Your task to perform on an android device: change the upload size in google photos Image 0: 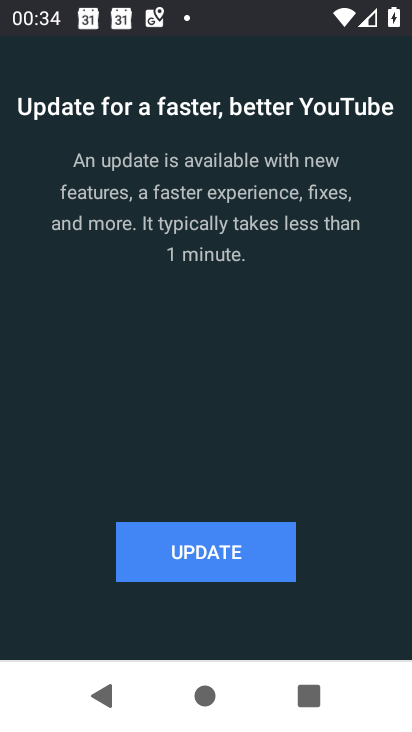
Step 0: press back button
Your task to perform on an android device: change the upload size in google photos Image 1: 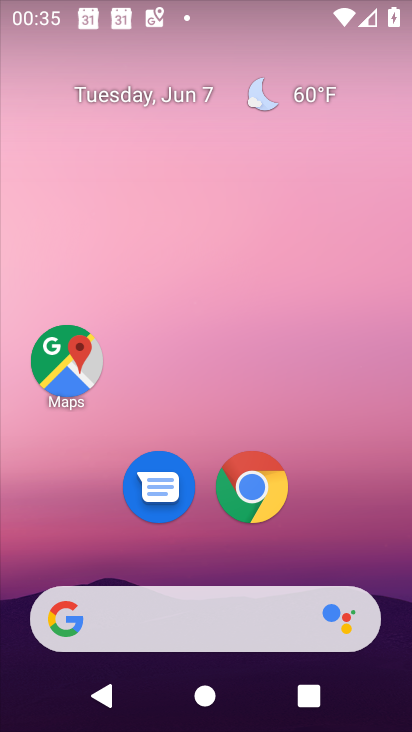
Step 1: drag from (395, 588) to (279, 52)
Your task to perform on an android device: change the upload size in google photos Image 2: 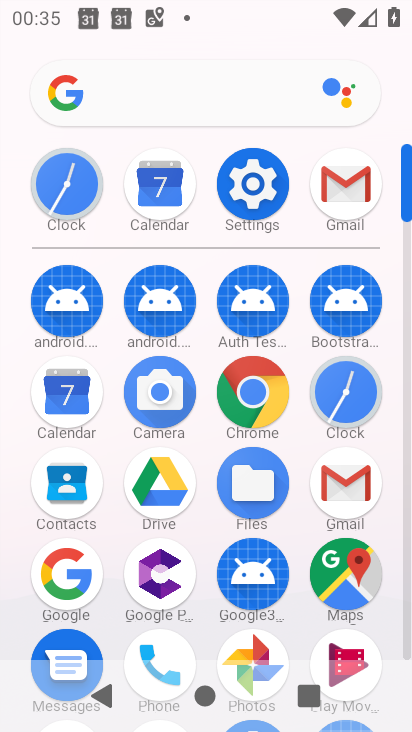
Step 2: click (264, 643)
Your task to perform on an android device: change the upload size in google photos Image 3: 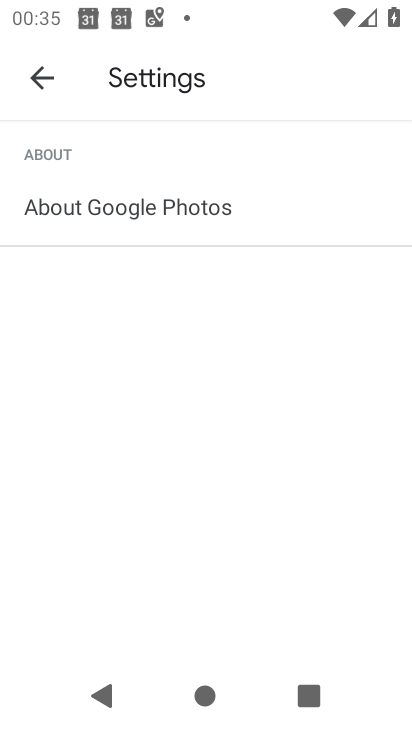
Step 3: click (49, 82)
Your task to perform on an android device: change the upload size in google photos Image 4: 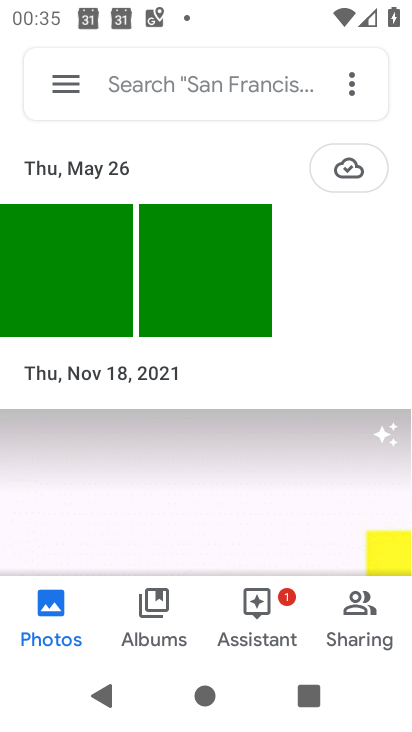
Step 4: click (54, 79)
Your task to perform on an android device: change the upload size in google photos Image 5: 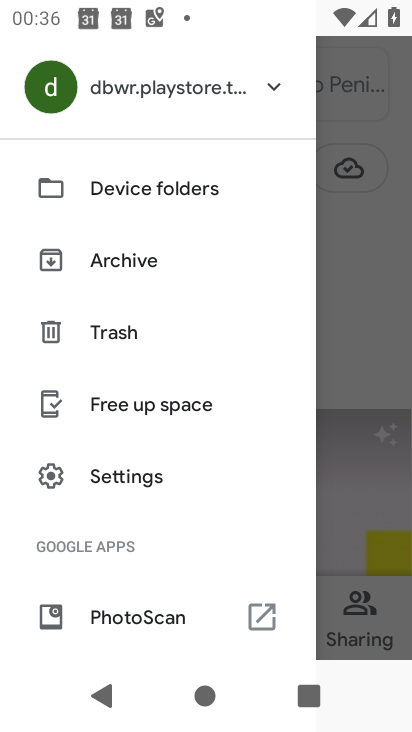
Step 5: click (149, 482)
Your task to perform on an android device: change the upload size in google photos Image 6: 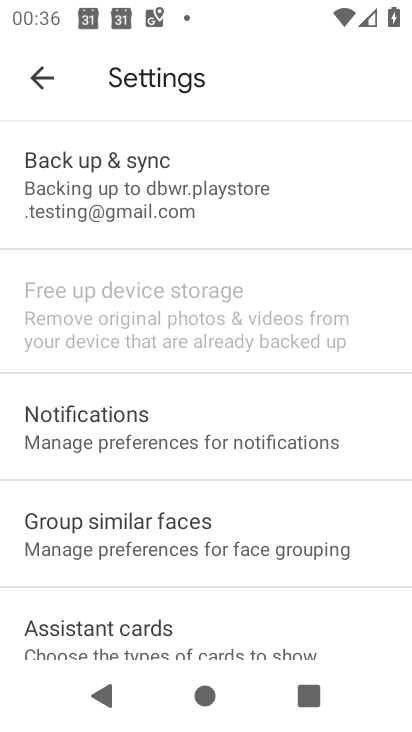
Step 6: click (204, 221)
Your task to perform on an android device: change the upload size in google photos Image 7: 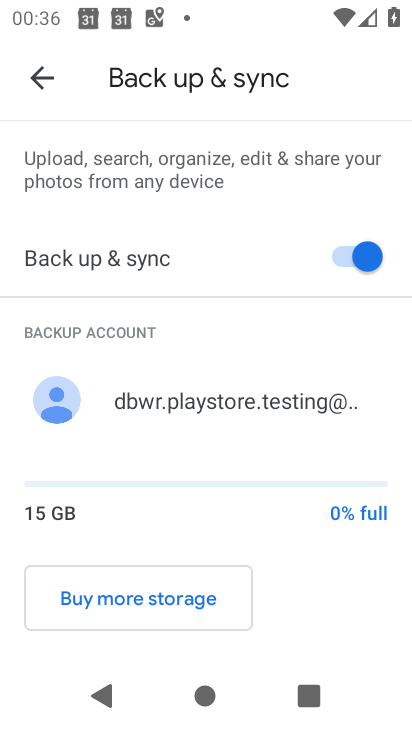
Step 7: drag from (251, 526) to (188, 10)
Your task to perform on an android device: change the upload size in google photos Image 8: 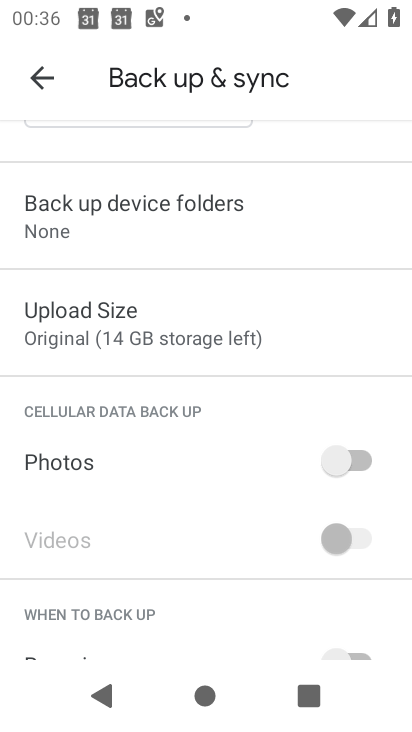
Step 8: click (264, 345)
Your task to perform on an android device: change the upload size in google photos Image 9: 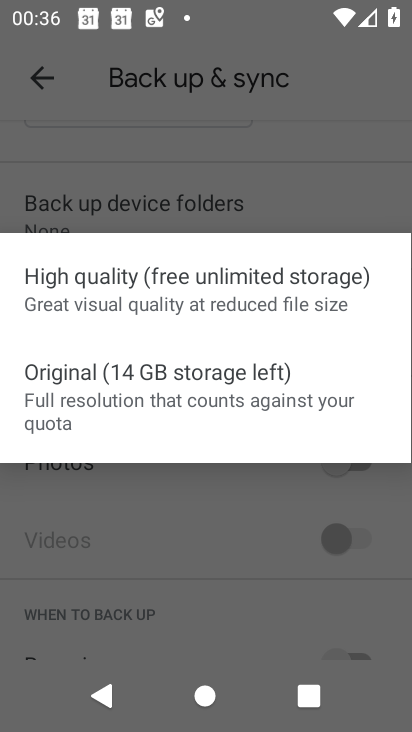
Step 9: click (263, 373)
Your task to perform on an android device: change the upload size in google photos Image 10: 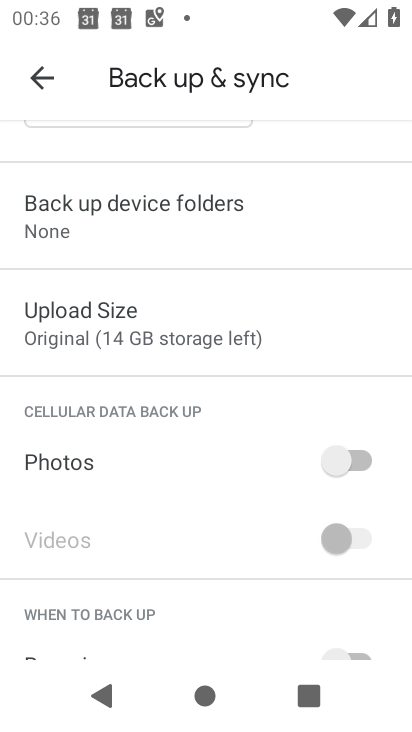
Step 10: task complete